Your task to perform on an android device: Open Google Chrome Image 0: 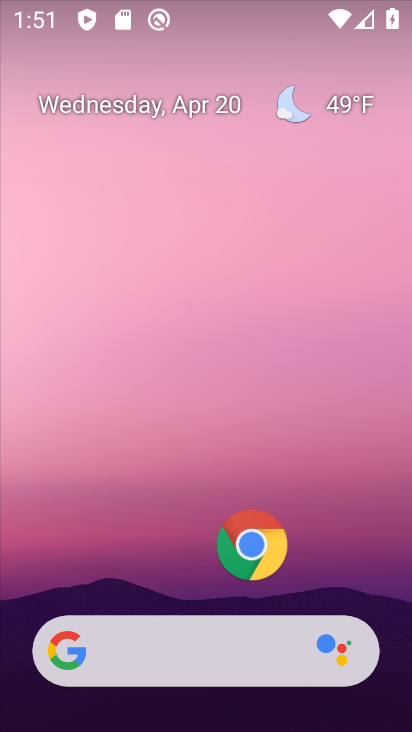
Step 0: click (254, 542)
Your task to perform on an android device: Open Google Chrome Image 1: 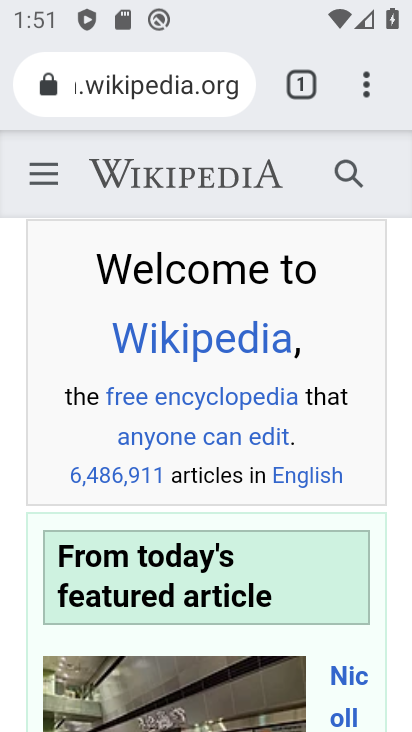
Step 1: task complete